Your task to perform on an android device: Open the calculator Image 0: 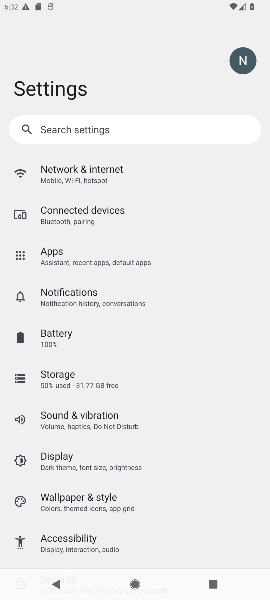
Step 0: press home button
Your task to perform on an android device: Open the calculator Image 1: 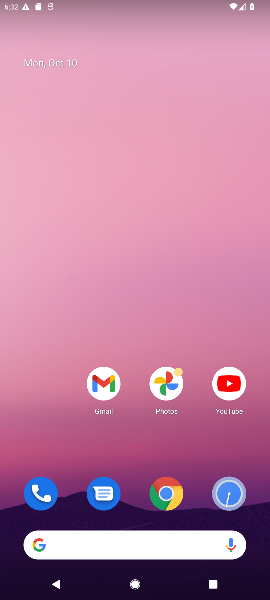
Step 1: click (254, 249)
Your task to perform on an android device: Open the calculator Image 2: 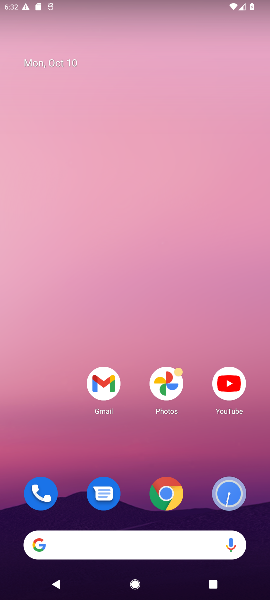
Step 2: task complete